Your task to perform on an android device: Open calendar and show me the first week of next month Image 0: 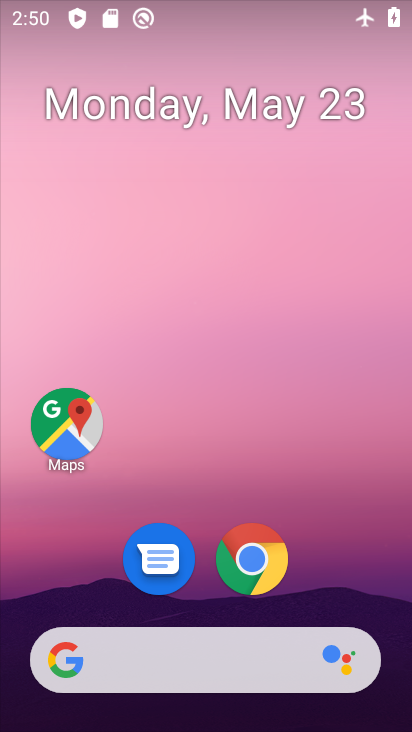
Step 0: drag from (233, 541) to (219, 217)
Your task to perform on an android device: Open calendar and show me the first week of next month Image 1: 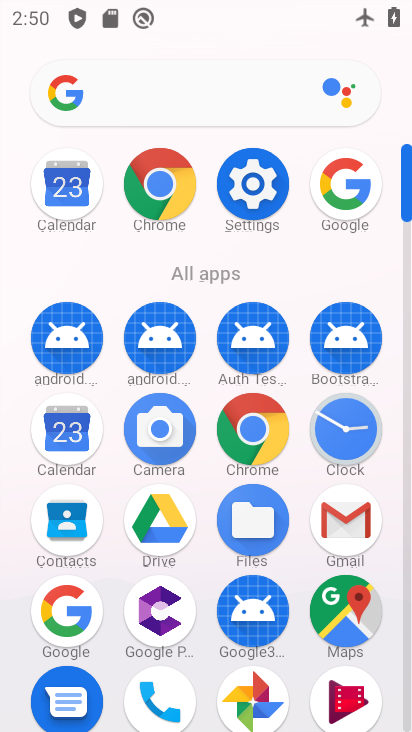
Step 1: click (84, 451)
Your task to perform on an android device: Open calendar and show me the first week of next month Image 2: 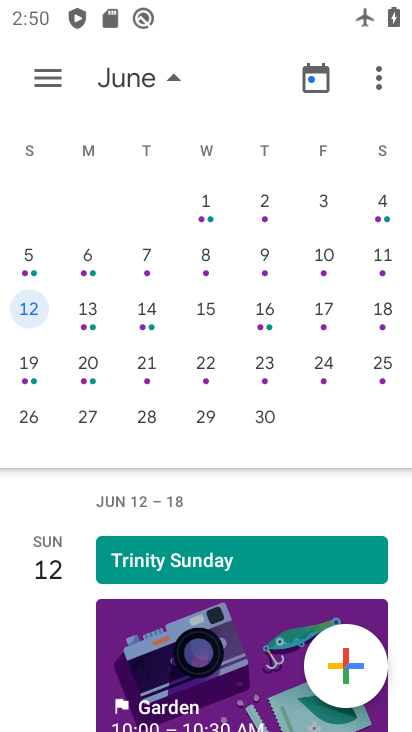
Step 2: click (34, 313)
Your task to perform on an android device: Open calendar and show me the first week of next month Image 3: 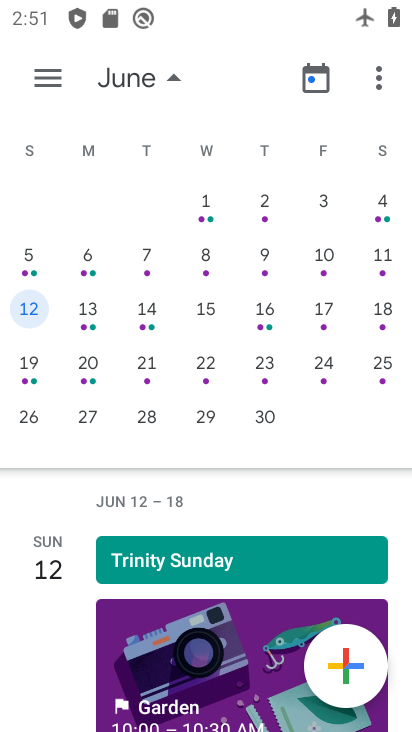
Step 3: task complete